Your task to perform on an android device: change notification settings in the gmail app Image 0: 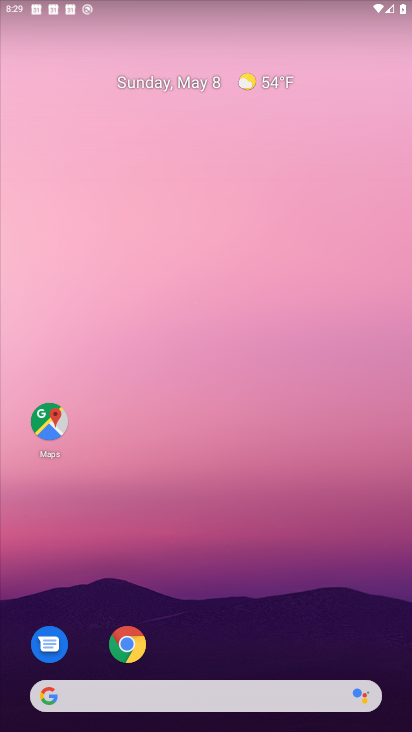
Step 0: drag from (169, 679) to (259, 162)
Your task to perform on an android device: change notification settings in the gmail app Image 1: 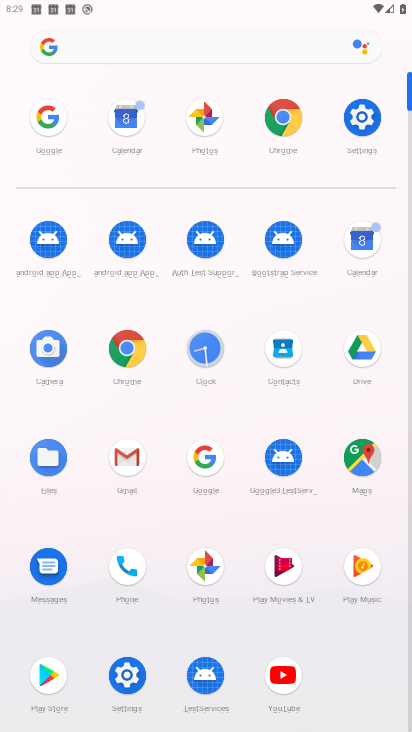
Step 1: click (116, 466)
Your task to perform on an android device: change notification settings in the gmail app Image 2: 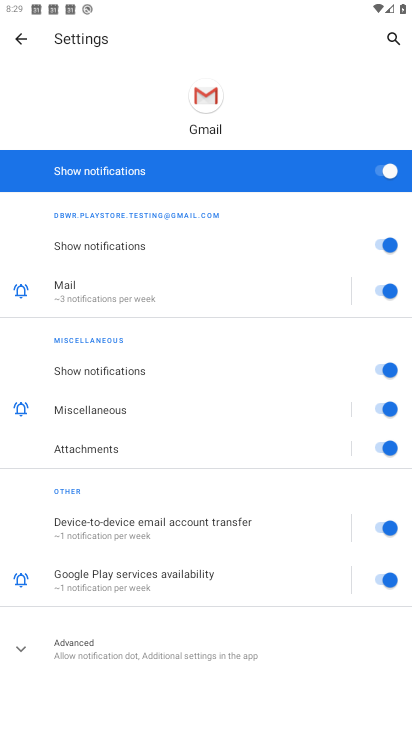
Step 2: click (384, 168)
Your task to perform on an android device: change notification settings in the gmail app Image 3: 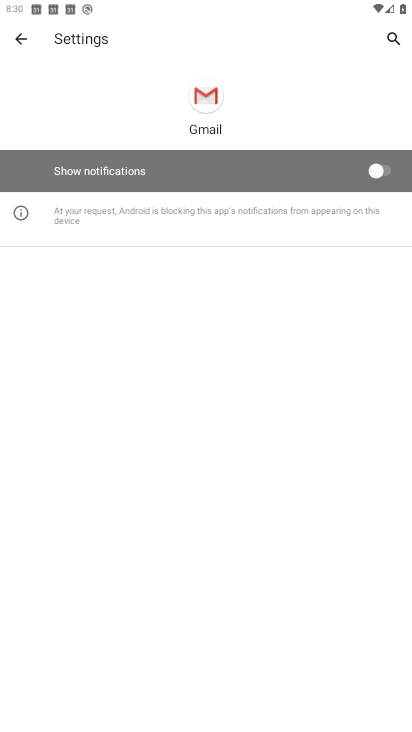
Step 3: task complete